Your task to perform on an android device: show emergency info Image 0: 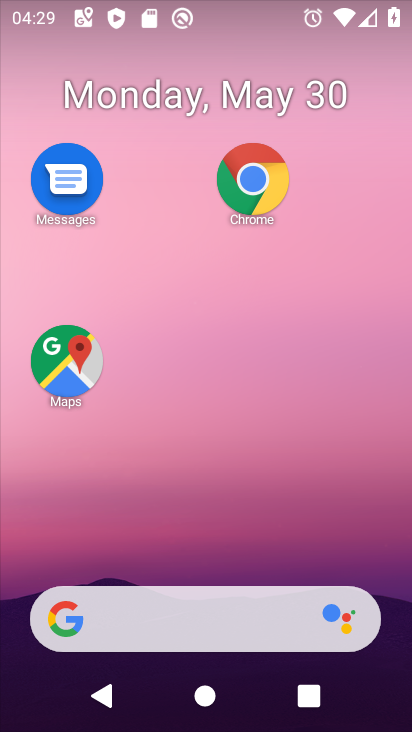
Step 0: drag from (224, 410) to (210, 148)
Your task to perform on an android device: show emergency info Image 1: 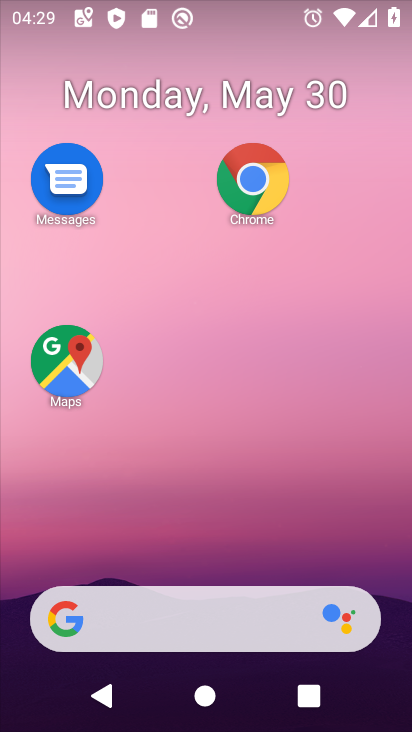
Step 1: drag from (205, 373) to (207, 168)
Your task to perform on an android device: show emergency info Image 2: 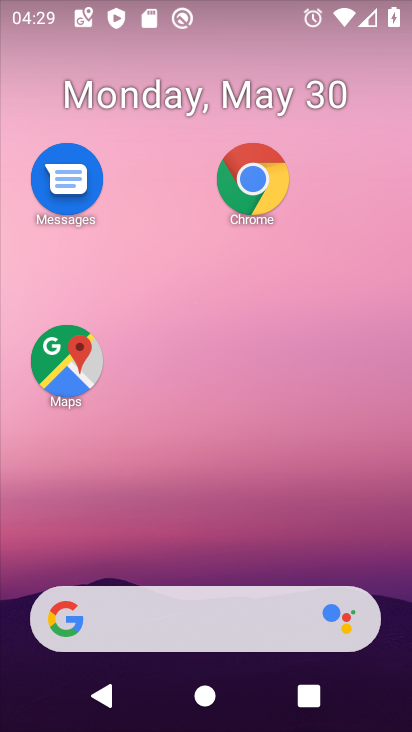
Step 2: drag from (176, 532) to (178, 94)
Your task to perform on an android device: show emergency info Image 3: 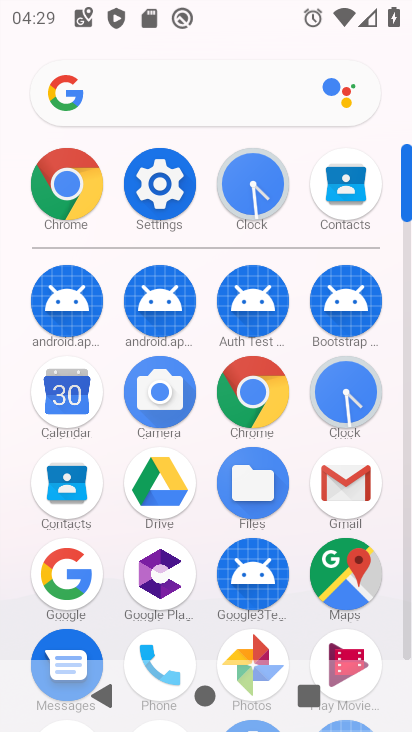
Step 3: click (156, 196)
Your task to perform on an android device: show emergency info Image 4: 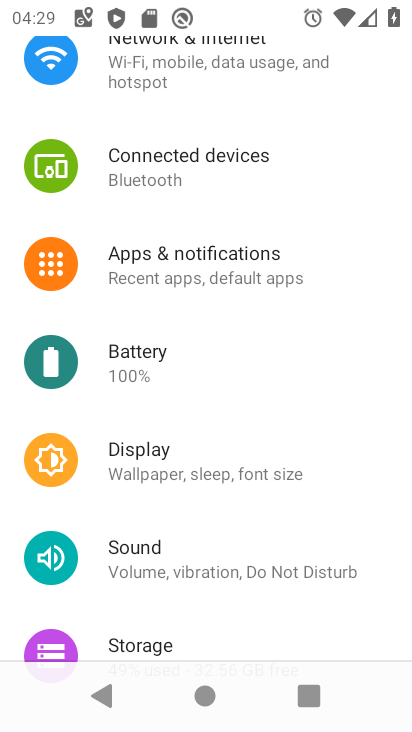
Step 4: drag from (224, 165) to (236, 488)
Your task to perform on an android device: show emergency info Image 5: 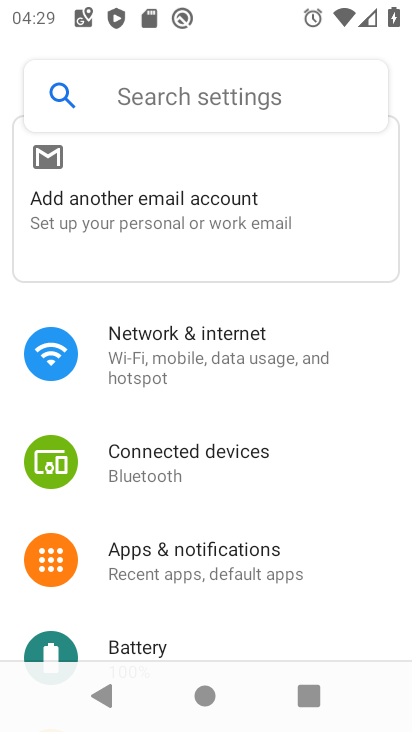
Step 5: drag from (133, 354) to (261, 709)
Your task to perform on an android device: show emergency info Image 6: 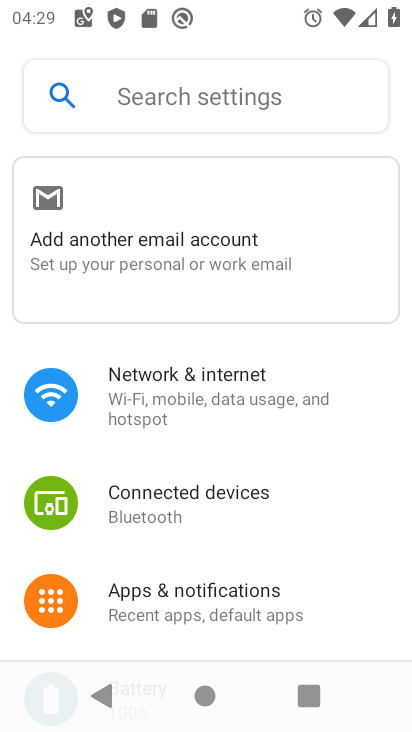
Step 6: drag from (231, 569) to (230, 262)
Your task to perform on an android device: show emergency info Image 7: 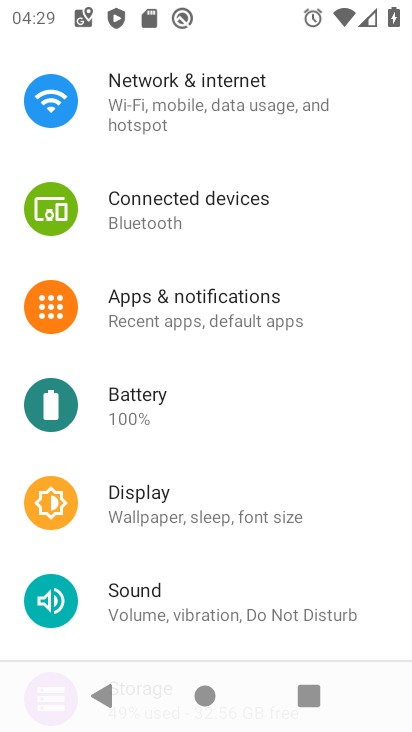
Step 7: drag from (191, 573) to (199, 181)
Your task to perform on an android device: show emergency info Image 8: 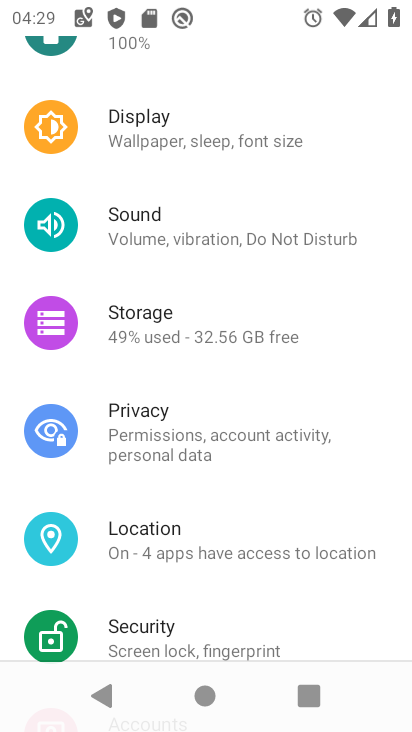
Step 8: drag from (166, 594) to (171, 253)
Your task to perform on an android device: show emergency info Image 9: 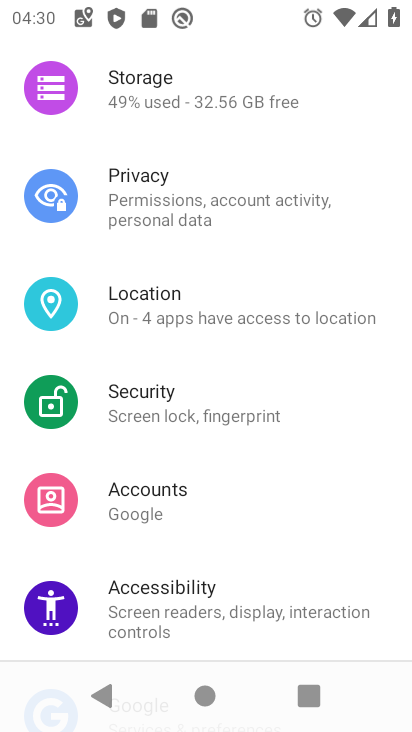
Step 9: drag from (152, 622) to (155, 309)
Your task to perform on an android device: show emergency info Image 10: 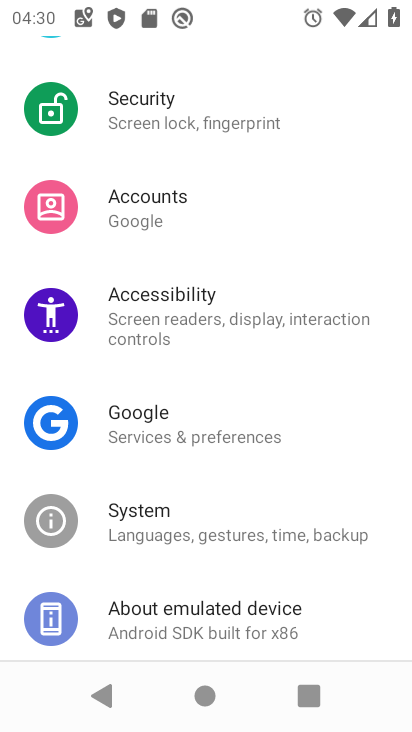
Step 10: click (133, 622)
Your task to perform on an android device: show emergency info Image 11: 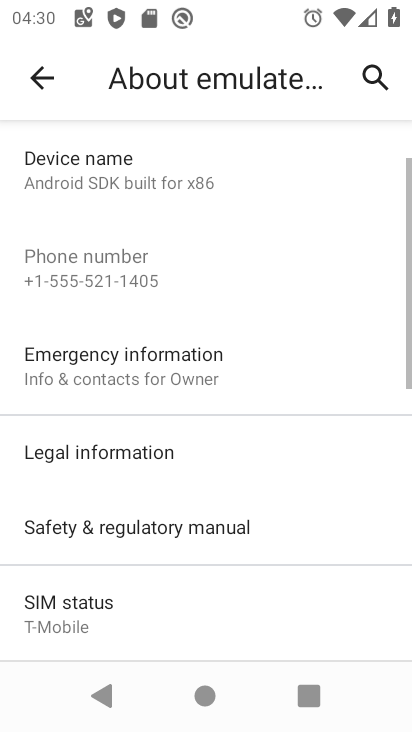
Step 11: click (115, 366)
Your task to perform on an android device: show emergency info Image 12: 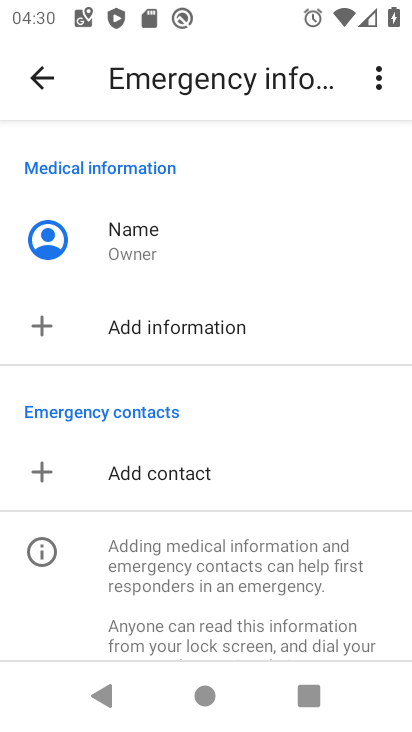
Step 12: task complete